Your task to perform on an android device: Check the settings for the Google Photos app Image 0: 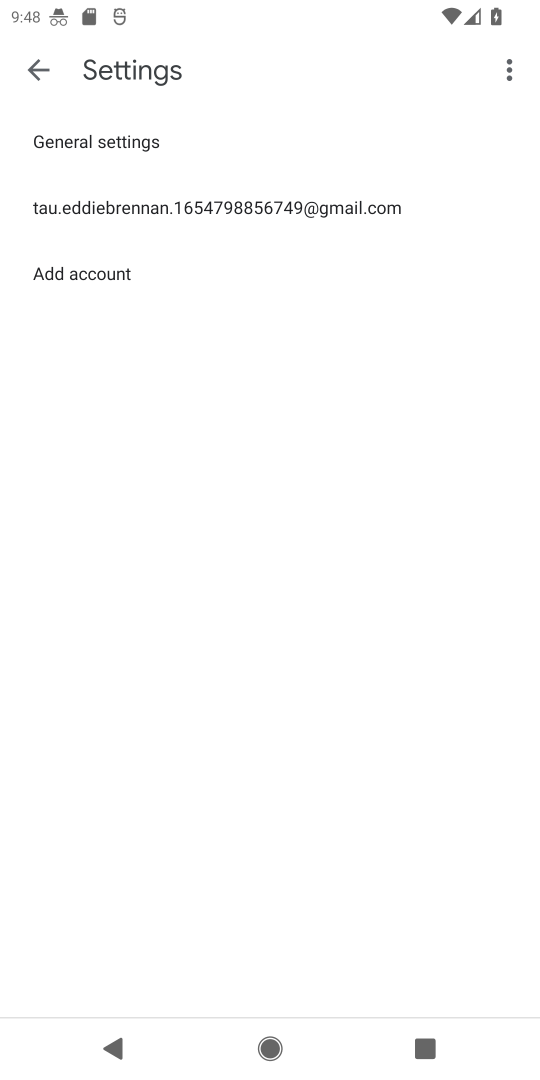
Step 0: press home button
Your task to perform on an android device: Check the settings for the Google Photos app Image 1: 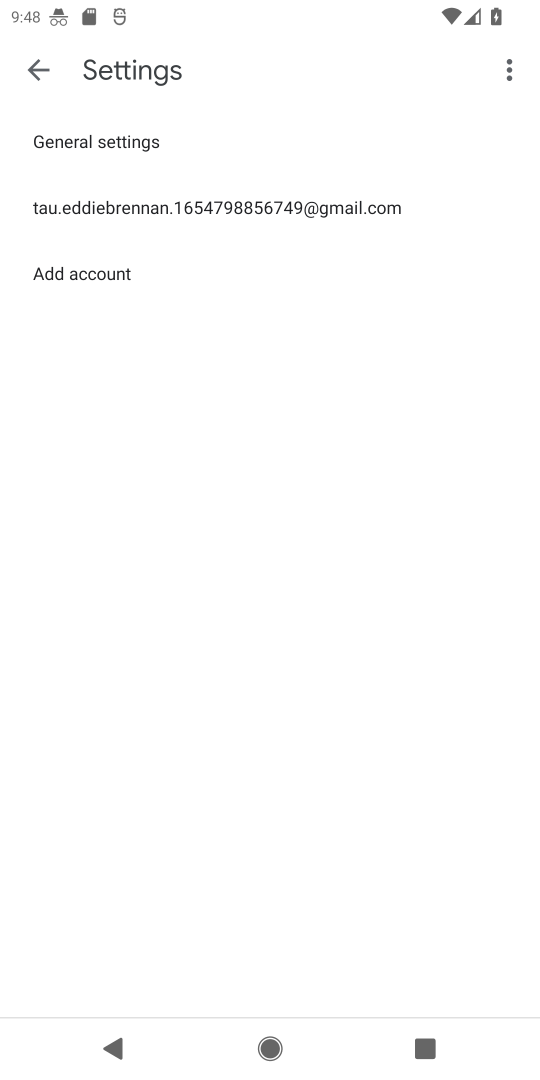
Step 1: press home button
Your task to perform on an android device: Check the settings for the Google Photos app Image 2: 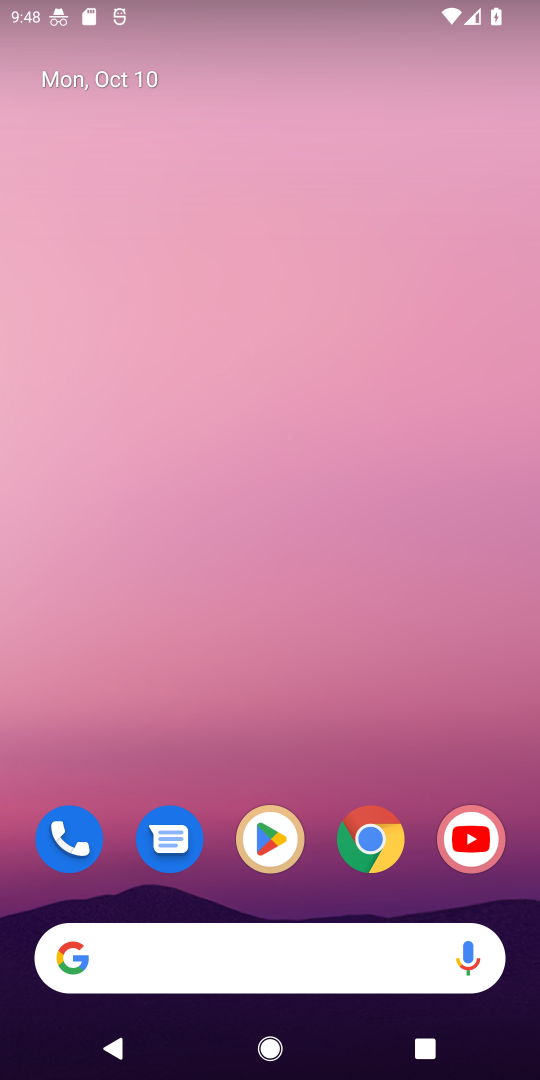
Step 2: drag from (331, 880) to (318, 55)
Your task to perform on an android device: Check the settings for the Google Photos app Image 3: 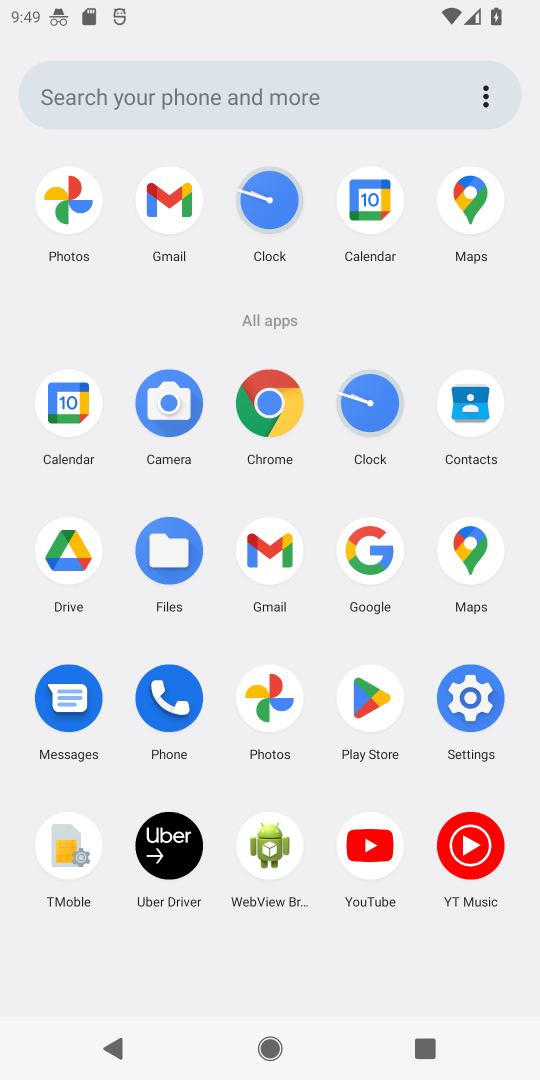
Step 3: click (286, 679)
Your task to perform on an android device: Check the settings for the Google Photos app Image 4: 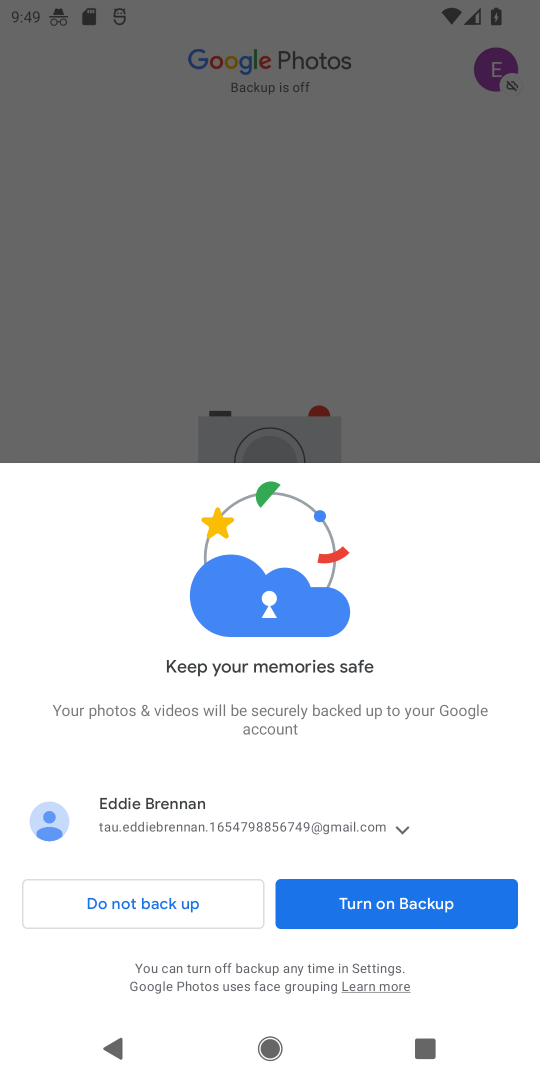
Step 4: click (391, 351)
Your task to perform on an android device: Check the settings for the Google Photos app Image 5: 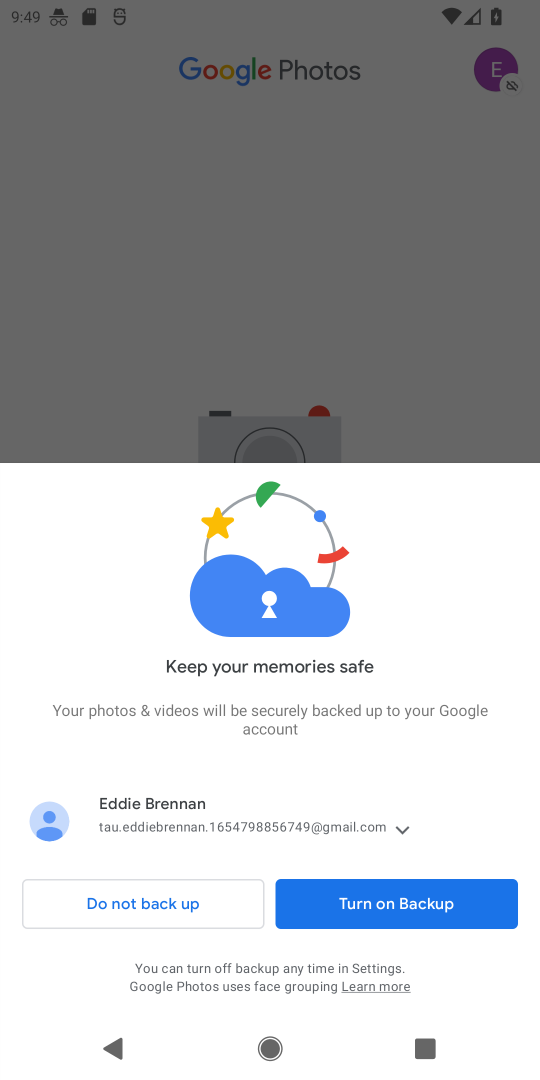
Step 5: click (334, 900)
Your task to perform on an android device: Check the settings for the Google Photos app Image 6: 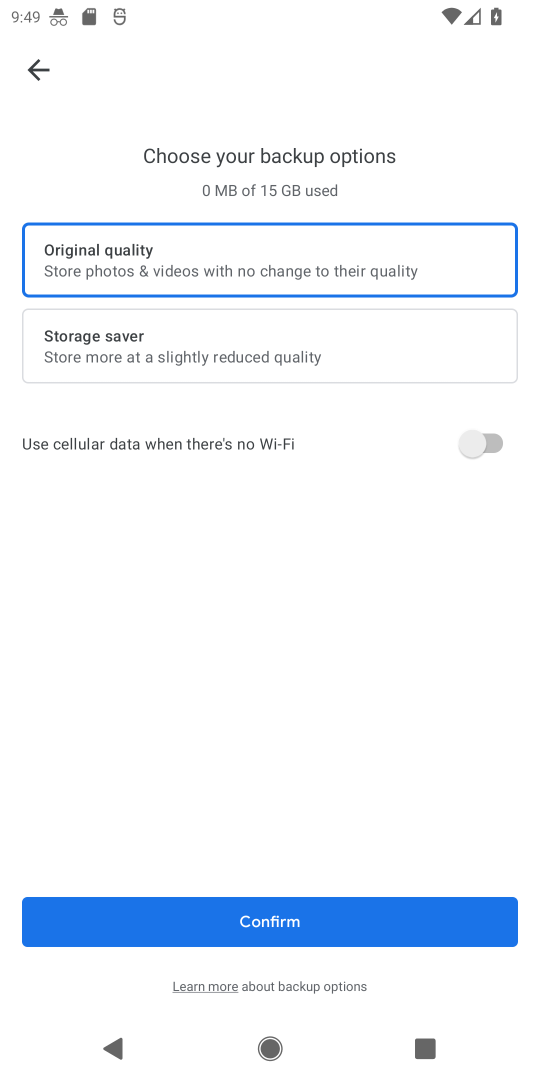
Step 6: click (367, 908)
Your task to perform on an android device: Check the settings for the Google Photos app Image 7: 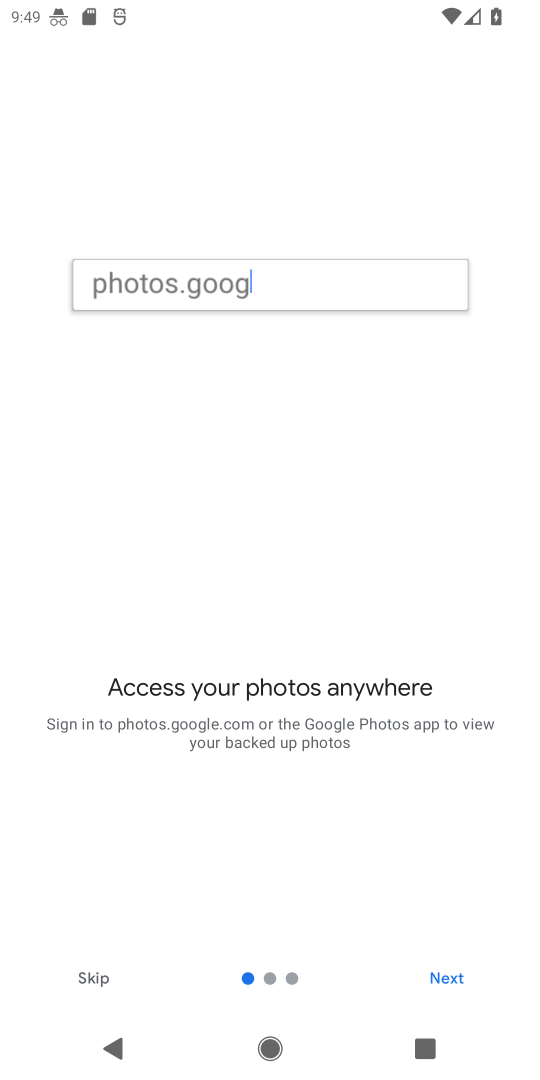
Step 7: click (448, 971)
Your task to perform on an android device: Check the settings for the Google Photos app Image 8: 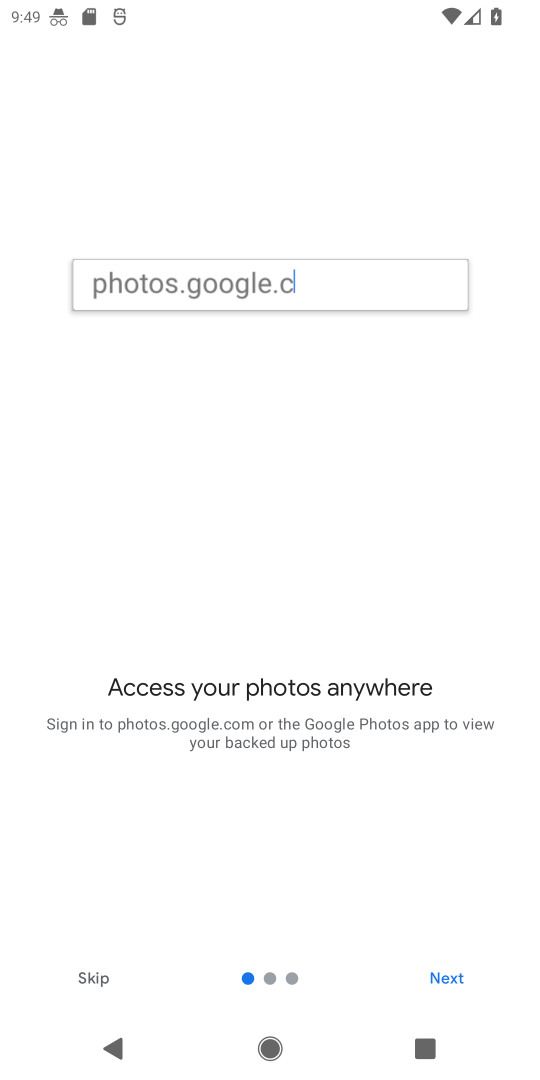
Step 8: click (448, 971)
Your task to perform on an android device: Check the settings for the Google Photos app Image 9: 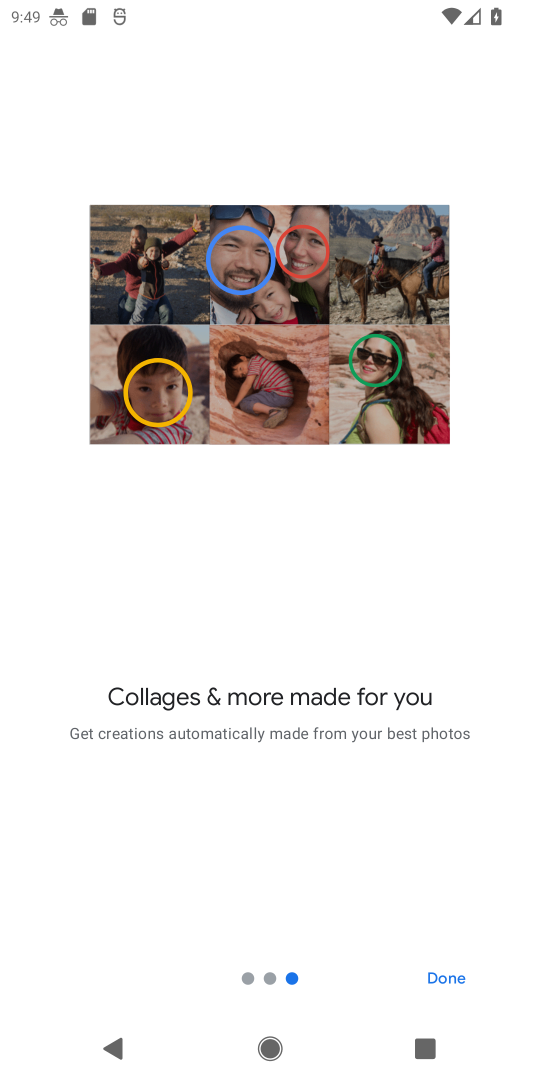
Step 9: click (449, 981)
Your task to perform on an android device: Check the settings for the Google Photos app Image 10: 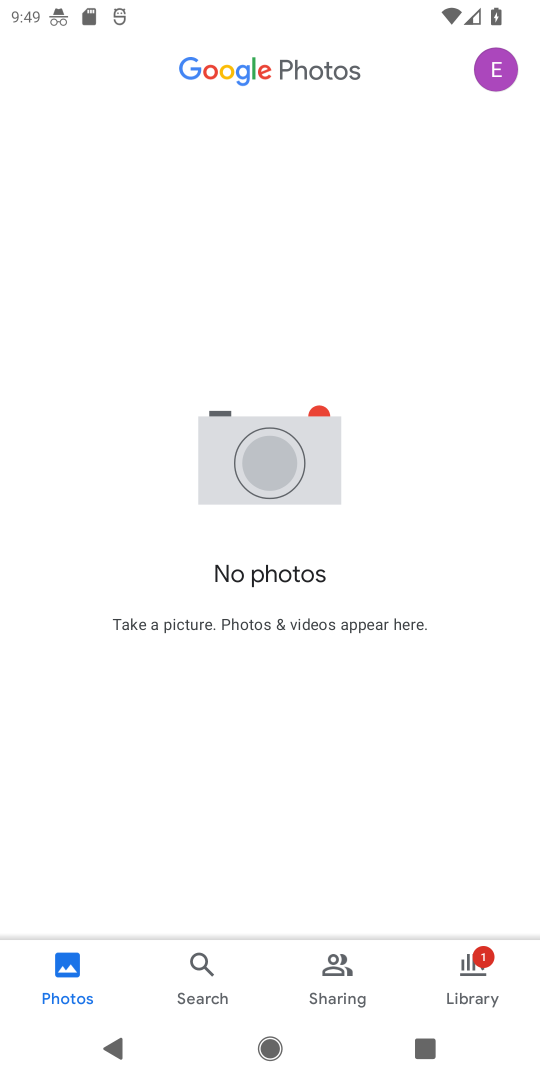
Step 10: click (504, 77)
Your task to perform on an android device: Check the settings for the Google Photos app Image 11: 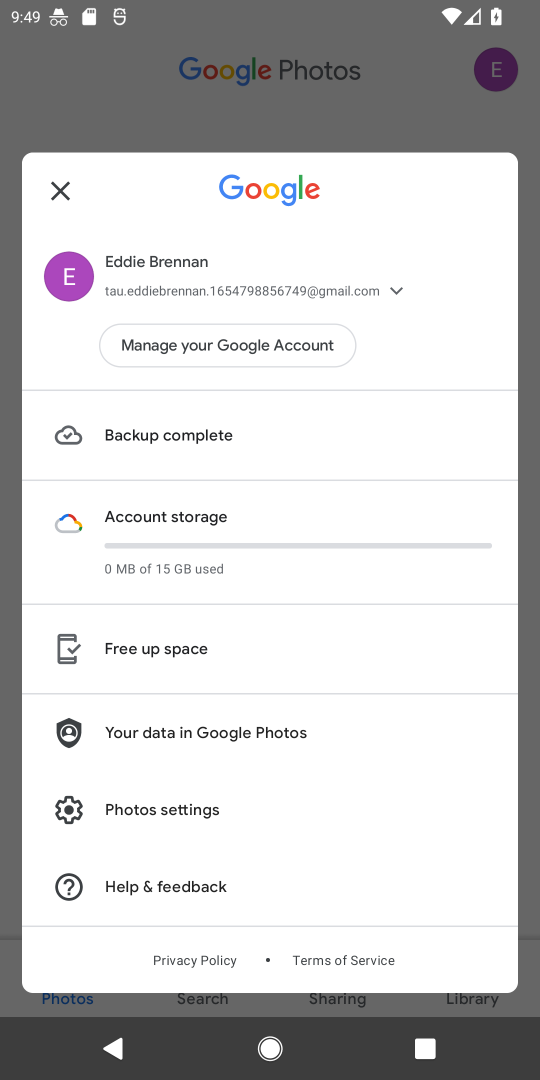
Step 11: click (187, 808)
Your task to perform on an android device: Check the settings for the Google Photos app Image 12: 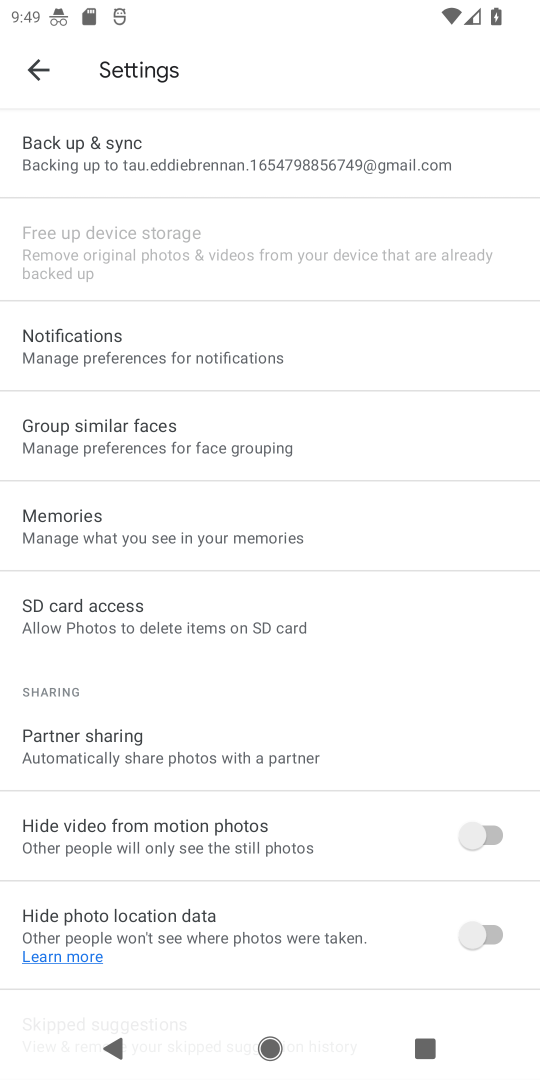
Step 12: task complete